Your task to perform on an android device: When is my next appointment? Image 0: 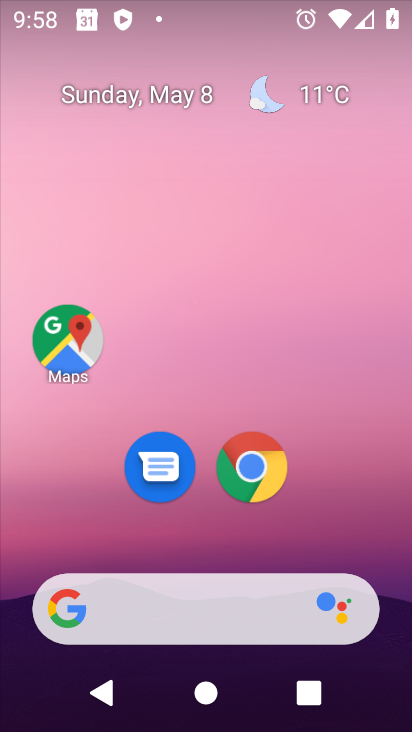
Step 0: drag from (33, 553) to (220, 81)
Your task to perform on an android device: When is my next appointment? Image 1: 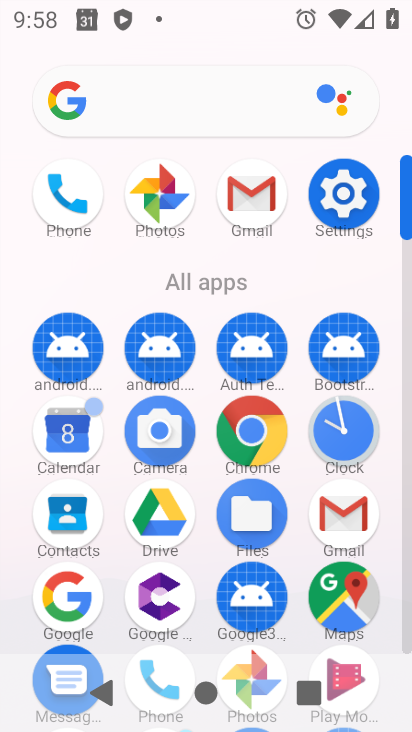
Step 1: click (65, 419)
Your task to perform on an android device: When is my next appointment? Image 2: 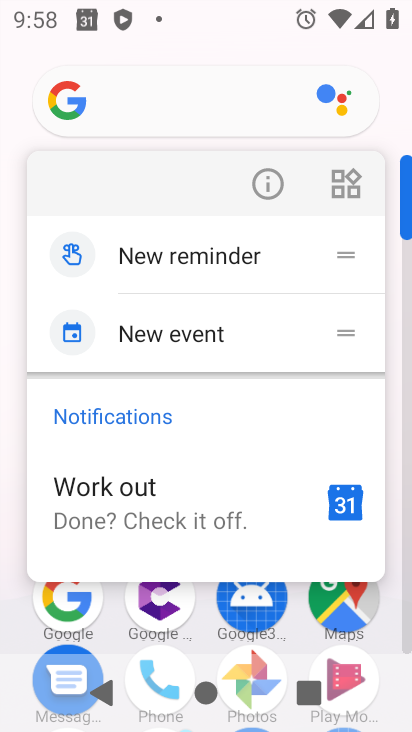
Step 2: click (279, 184)
Your task to perform on an android device: When is my next appointment? Image 3: 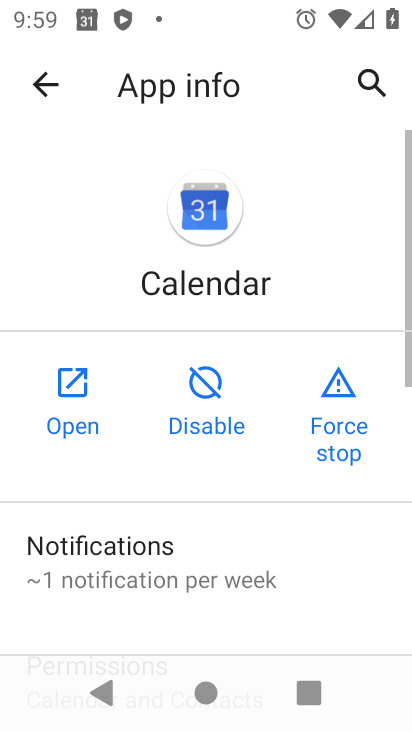
Step 3: click (67, 389)
Your task to perform on an android device: When is my next appointment? Image 4: 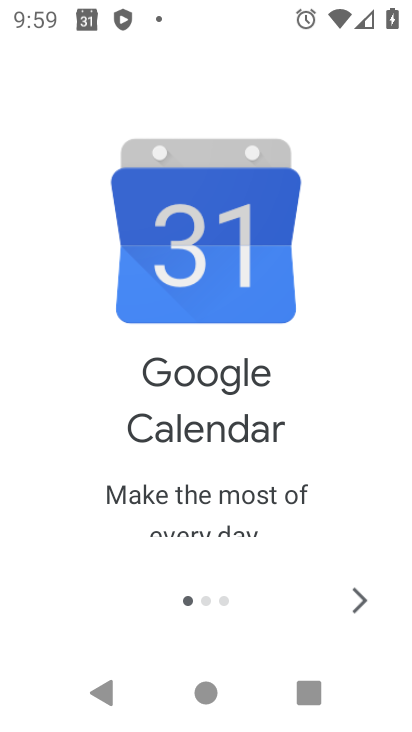
Step 4: click (363, 600)
Your task to perform on an android device: When is my next appointment? Image 5: 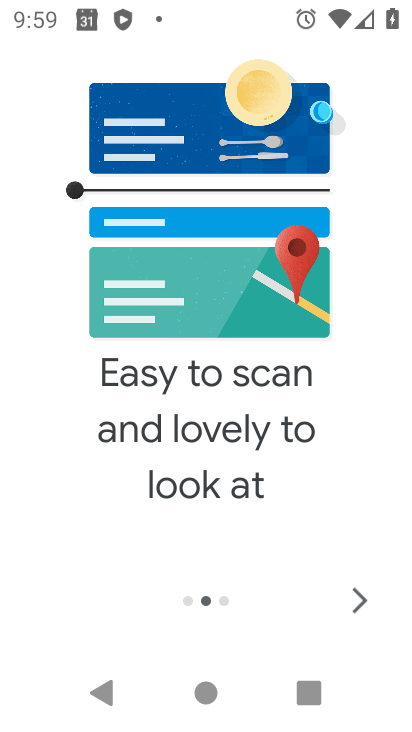
Step 5: click (363, 600)
Your task to perform on an android device: When is my next appointment? Image 6: 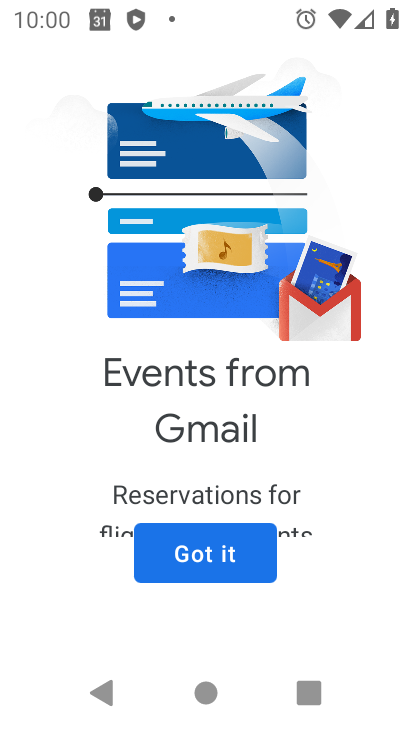
Step 6: click (247, 562)
Your task to perform on an android device: When is my next appointment? Image 7: 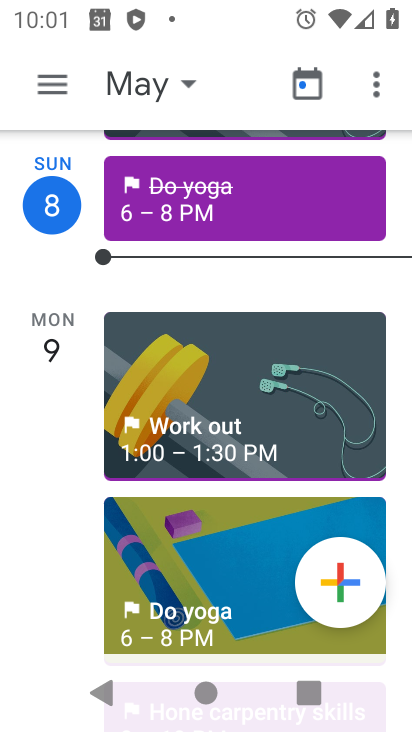
Step 7: task complete